Your task to perform on an android device: Show me productivity apps on the Play Store Image 0: 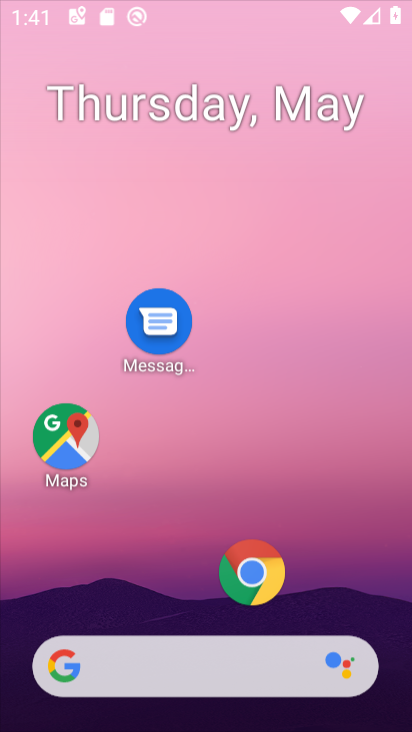
Step 0: drag from (168, 618) to (228, 278)
Your task to perform on an android device: Show me productivity apps on the Play Store Image 1: 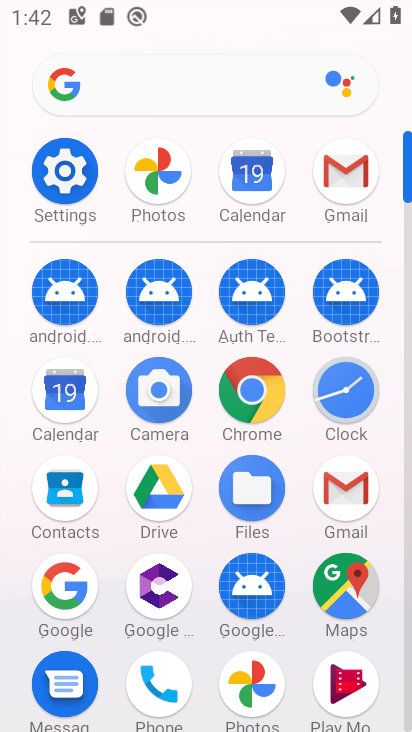
Step 1: drag from (205, 654) to (215, 284)
Your task to perform on an android device: Show me productivity apps on the Play Store Image 2: 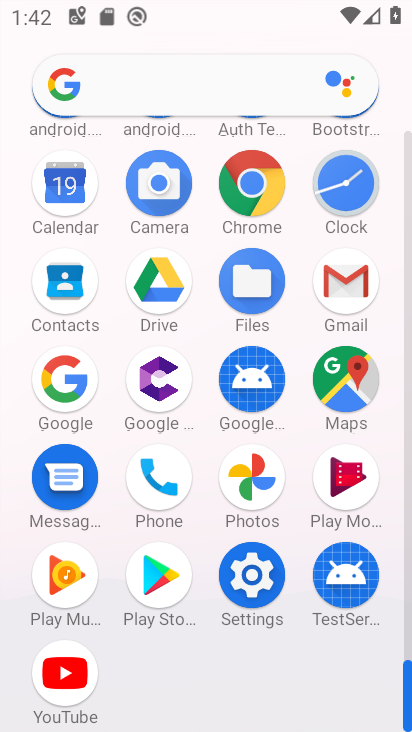
Step 2: click (162, 571)
Your task to perform on an android device: Show me productivity apps on the Play Store Image 3: 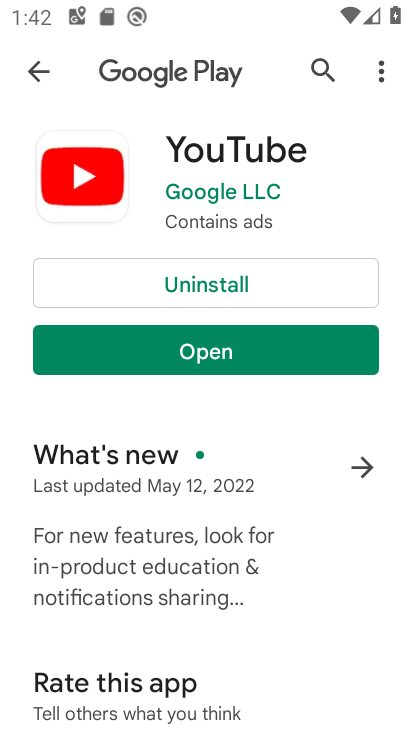
Step 3: drag from (267, 590) to (267, 333)
Your task to perform on an android device: Show me productivity apps on the Play Store Image 4: 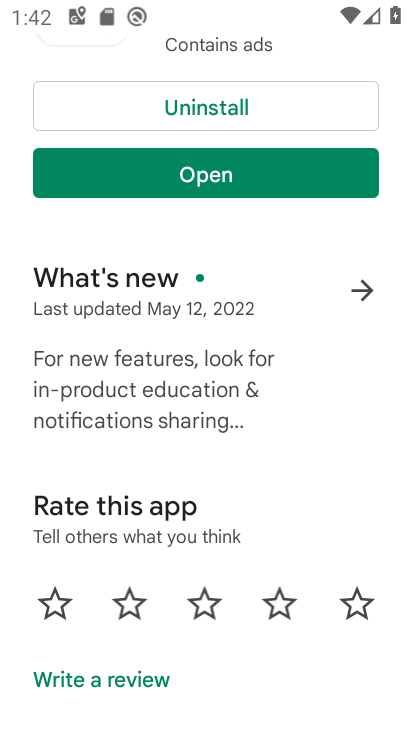
Step 4: drag from (229, 478) to (238, 260)
Your task to perform on an android device: Show me productivity apps on the Play Store Image 5: 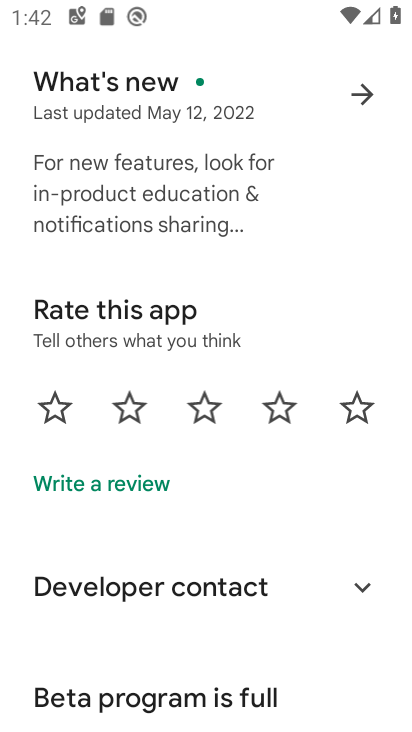
Step 5: drag from (239, 237) to (321, 714)
Your task to perform on an android device: Show me productivity apps on the Play Store Image 6: 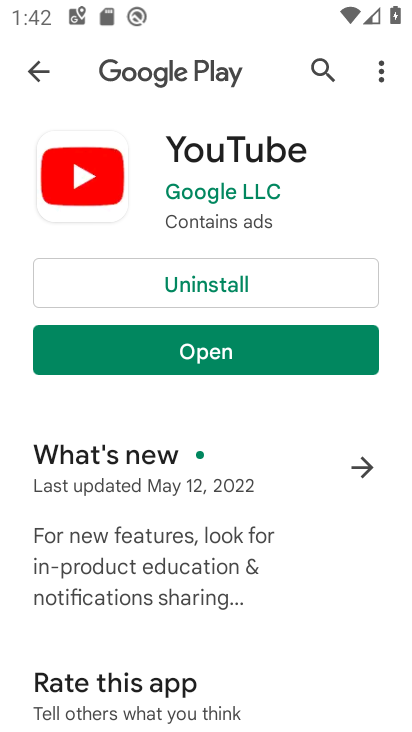
Step 6: click (34, 68)
Your task to perform on an android device: Show me productivity apps on the Play Store Image 7: 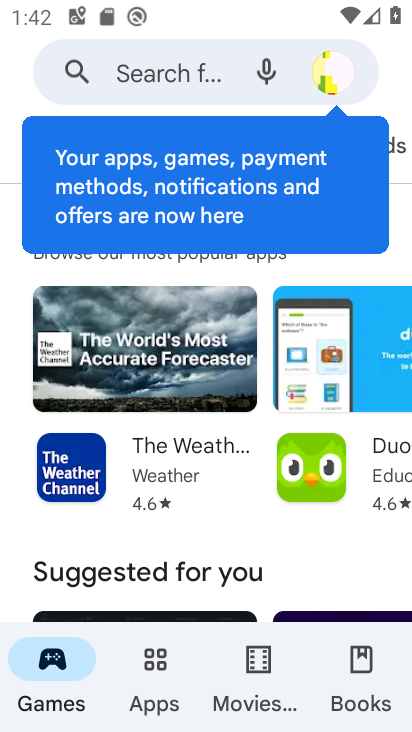
Step 7: task complete